Your task to perform on an android device: What's the news in Nepal? Image 0: 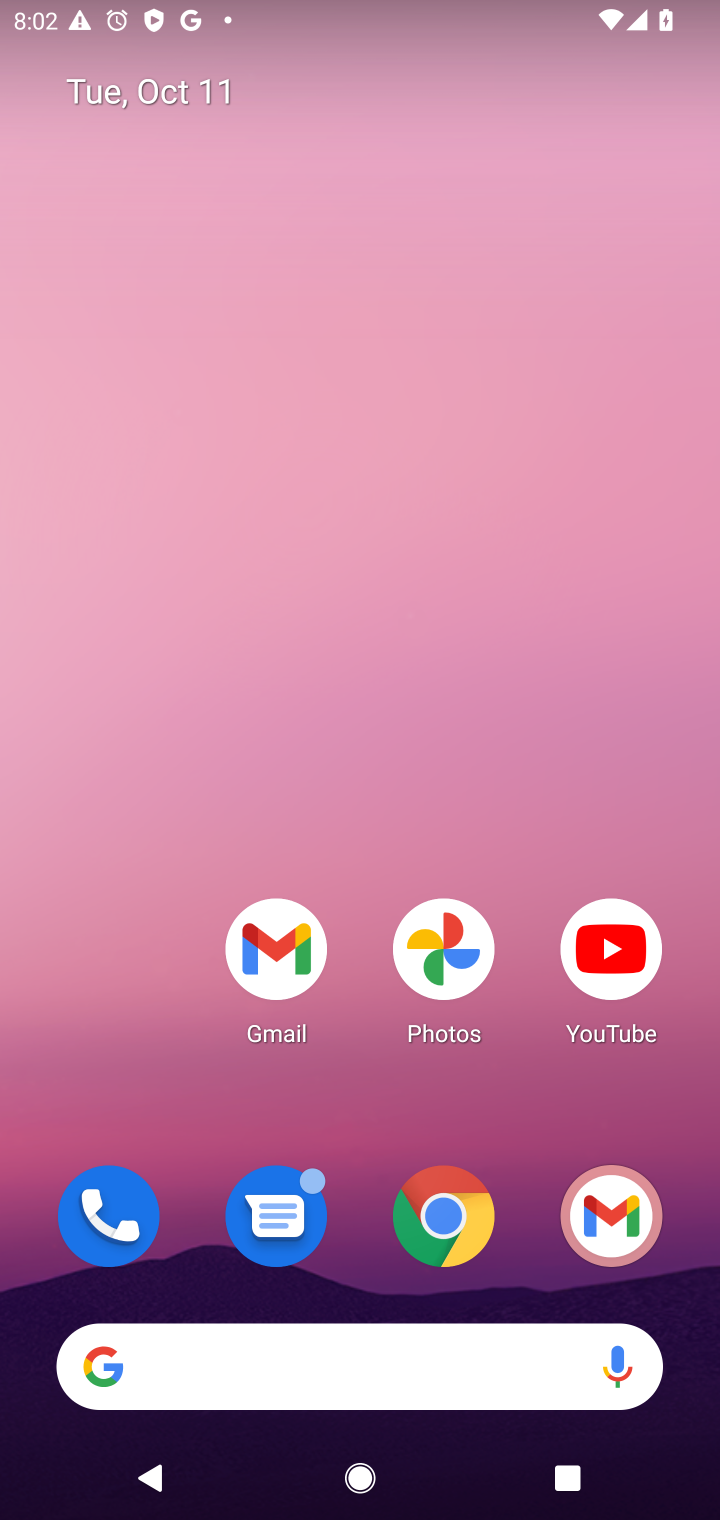
Step 0: click (424, 1229)
Your task to perform on an android device: What's the news in Nepal? Image 1: 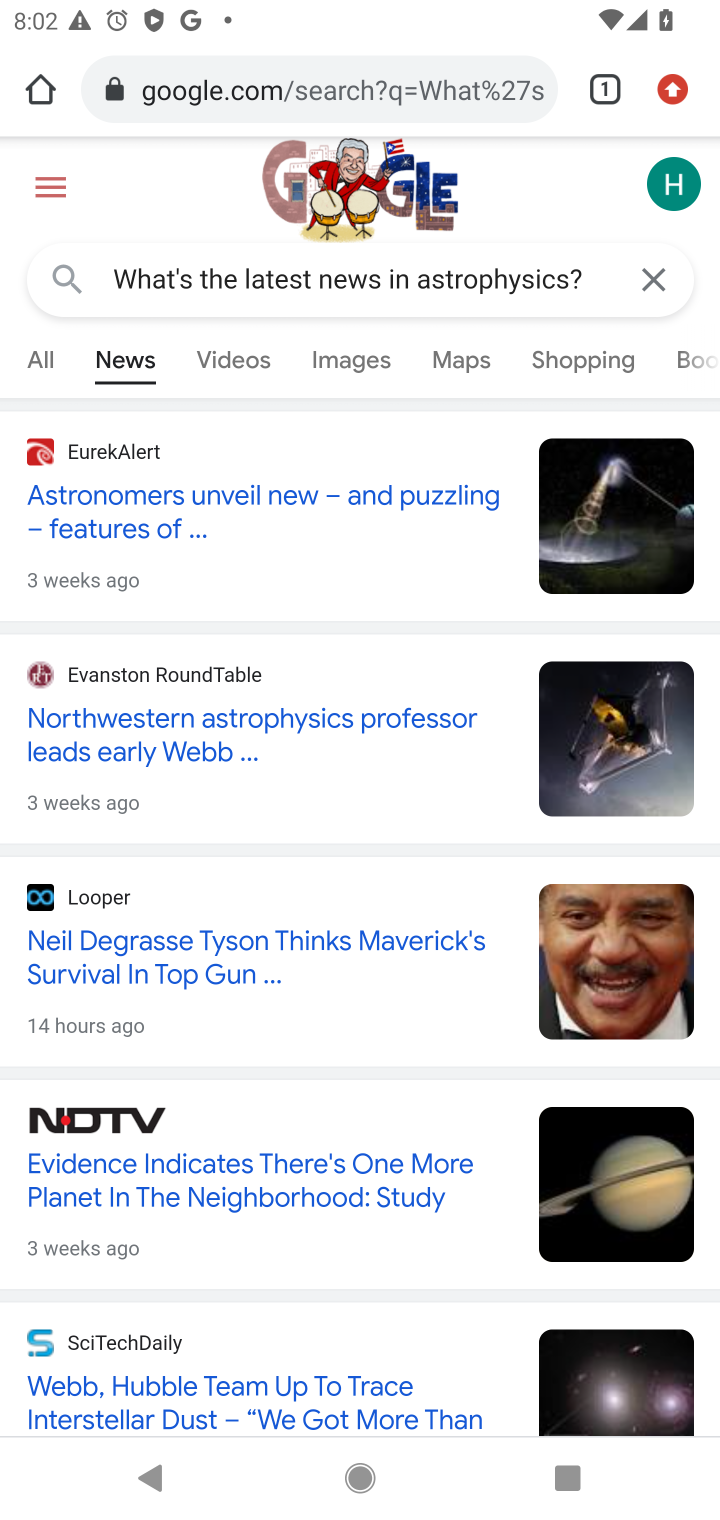
Step 1: click (324, 280)
Your task to perform on an android device: What's the news in Nepal? Image 2: 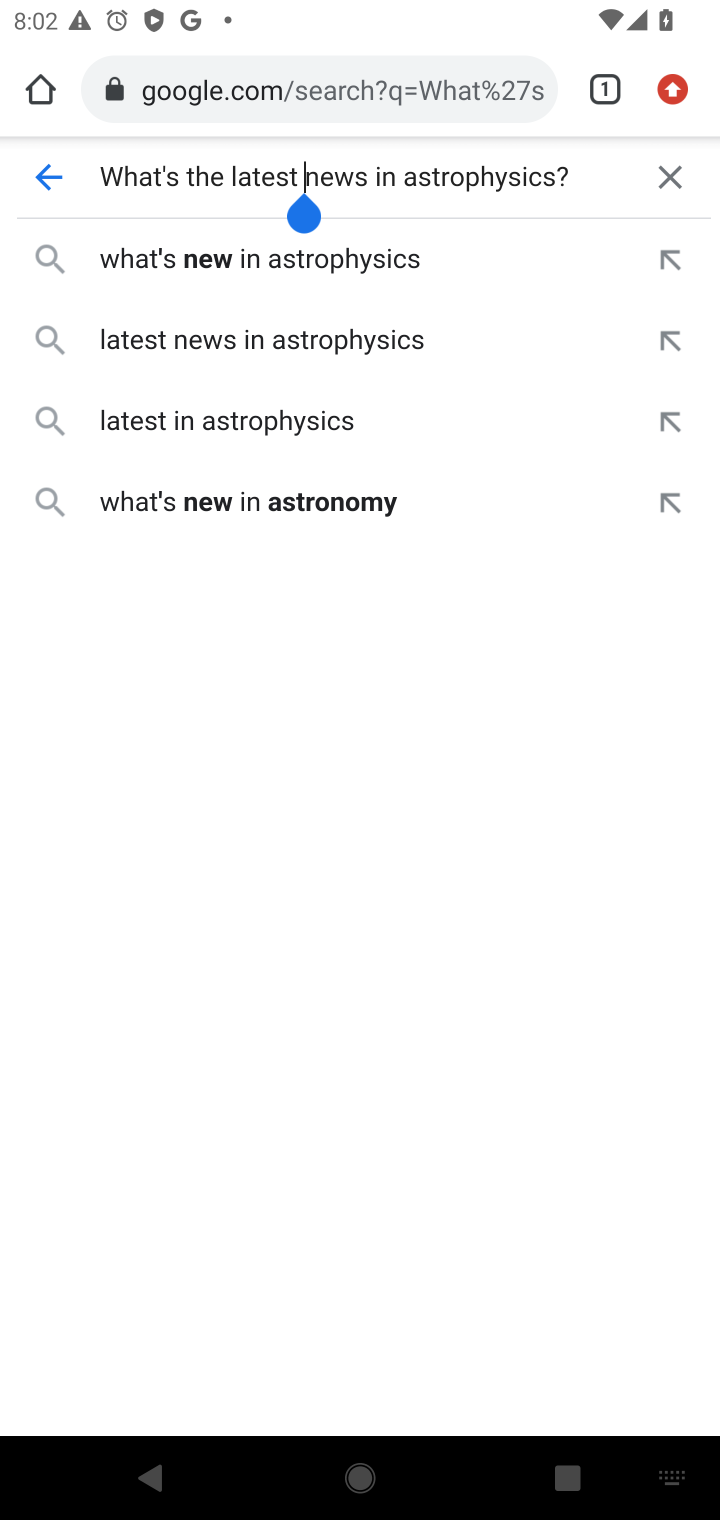
Step 2: click (650, 181)
Your task to perform on an android device: What's the news in Nepal? Image 3: 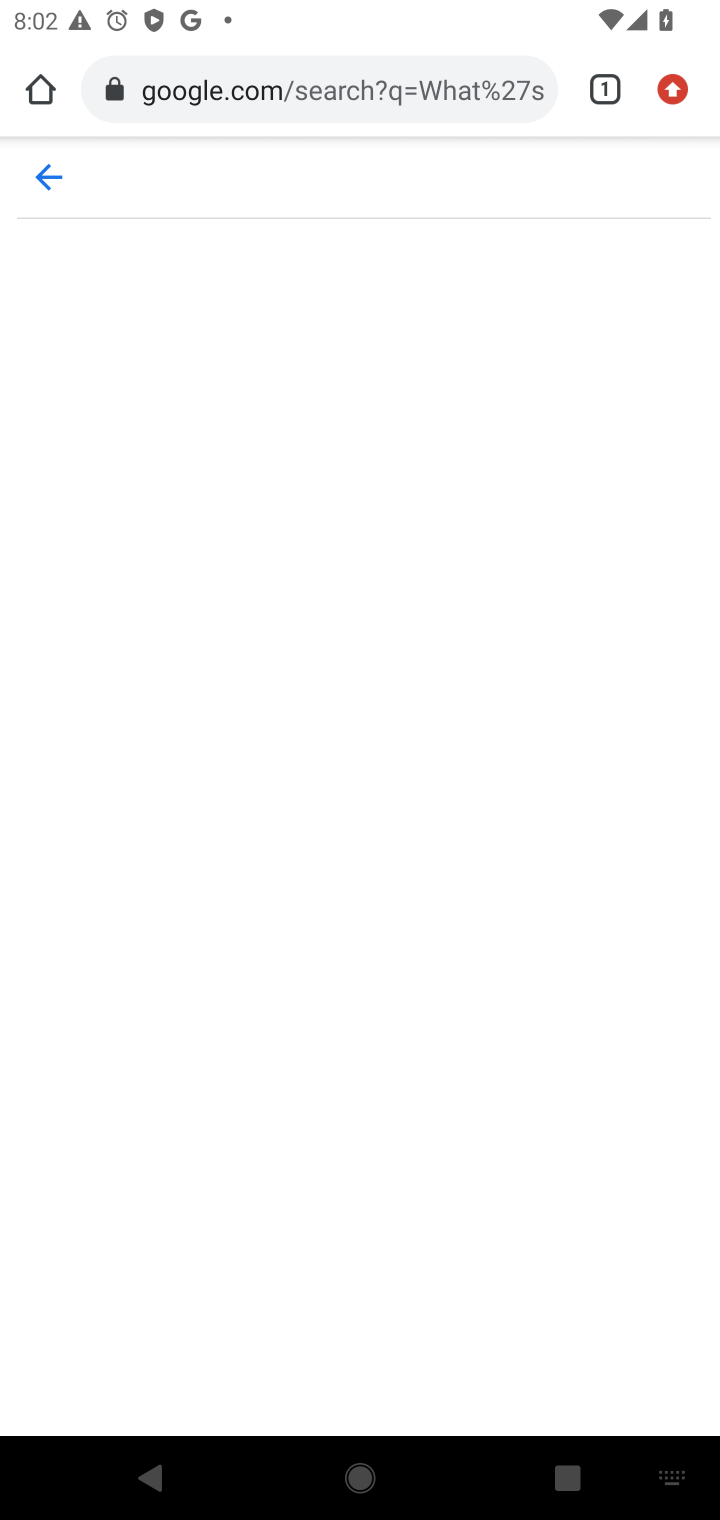
Step 3: type "news in nepal"
Your task to perform on an android device: What's the news in Nepal? Image 4: 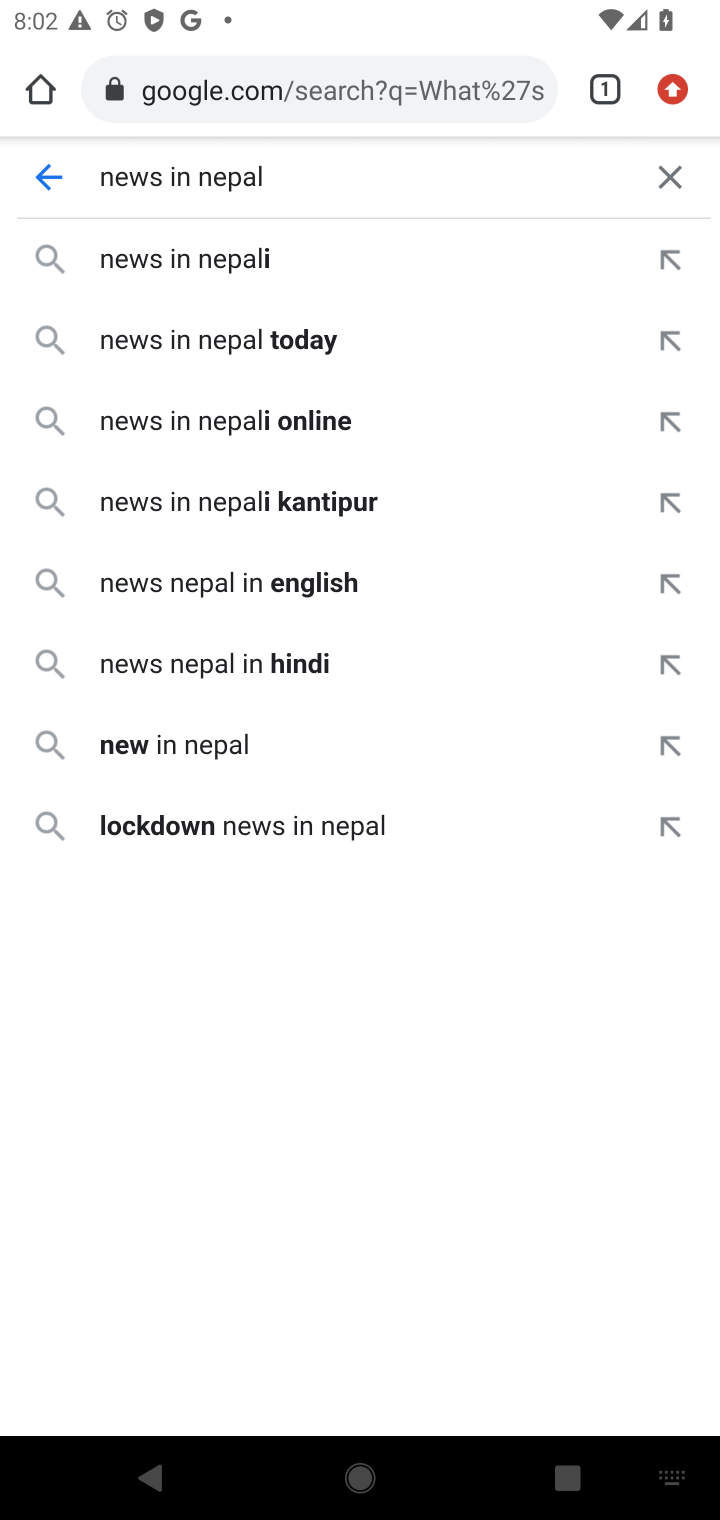
Step 4: click (302, 269)
Your task to perform on an android device: What's the news in Nepal? Image 5: 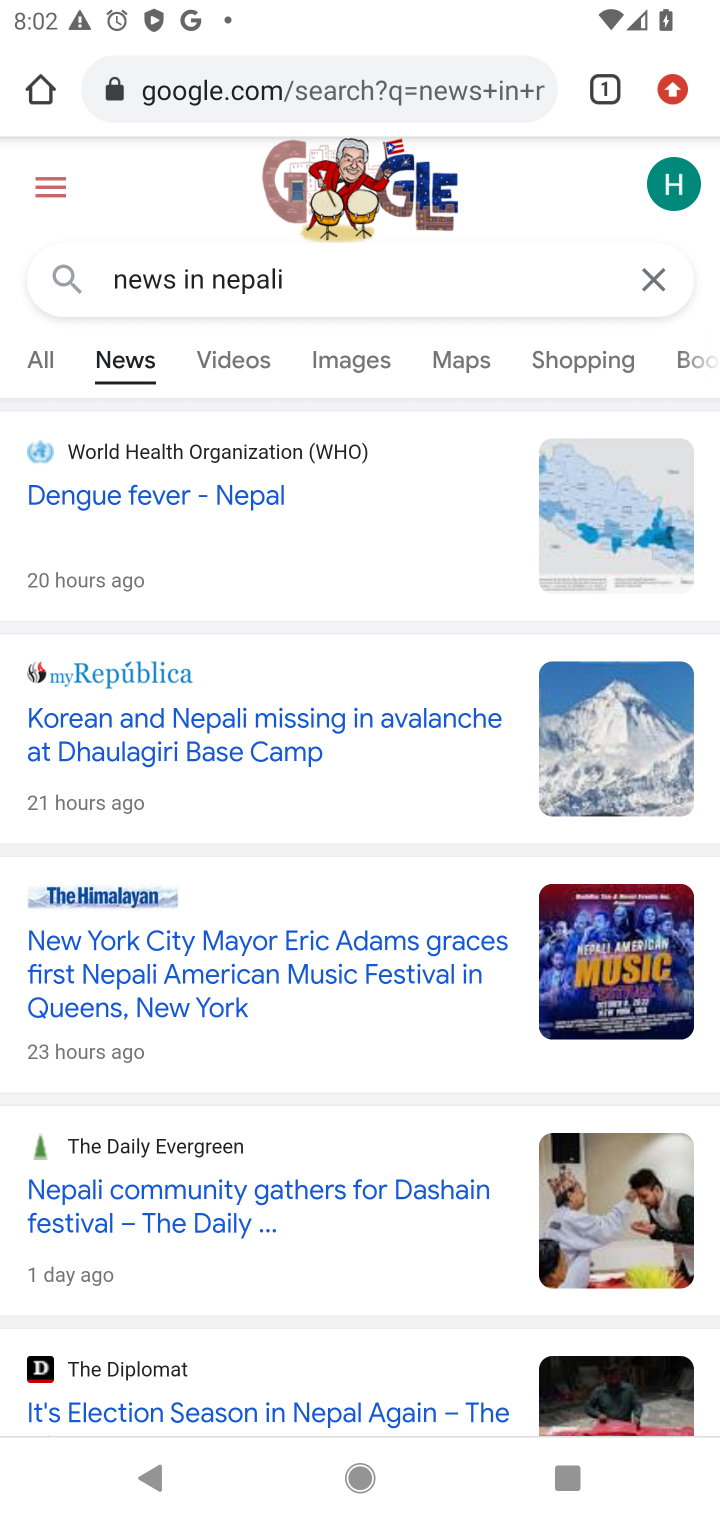
Step 5: task complete